Your task to perform on an android device: Go to Android settings Image 0: 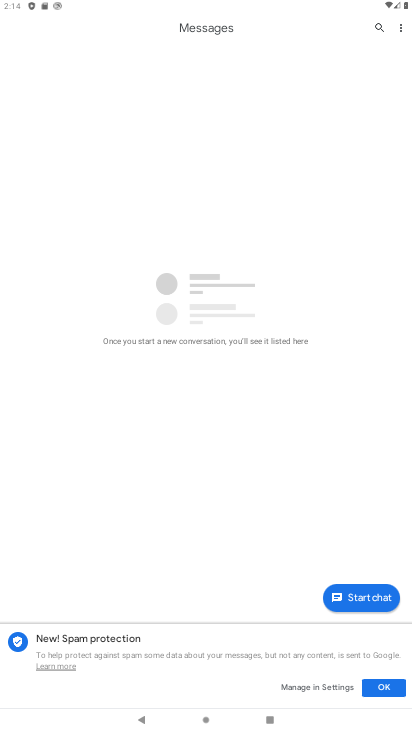
Step 0: press home button
Your task to perform on an android device: Go to Android settings Image 1: 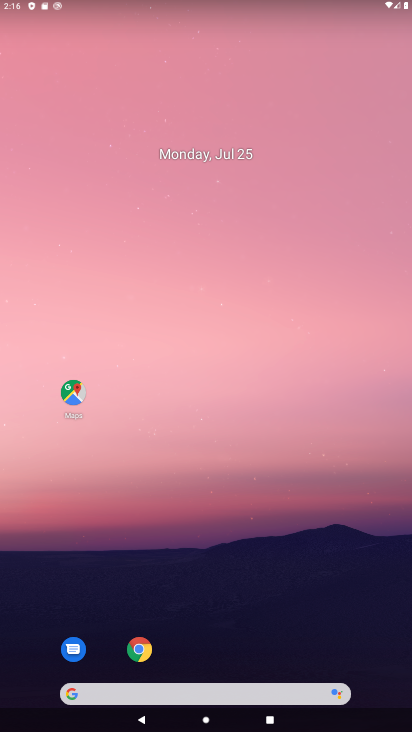
Step 1: drag from (181, 722) to (225, 6)
Your task to perform on an android device: Go to Android settings Image 2: 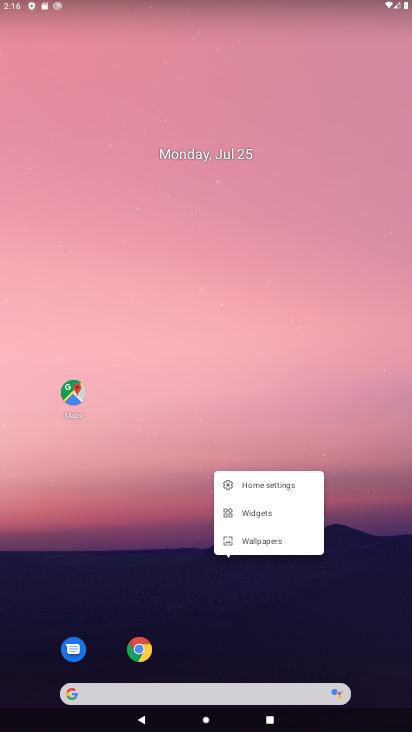
Step 2: press home button
Your task to perform on an android device: Go to Android settings Image 3: 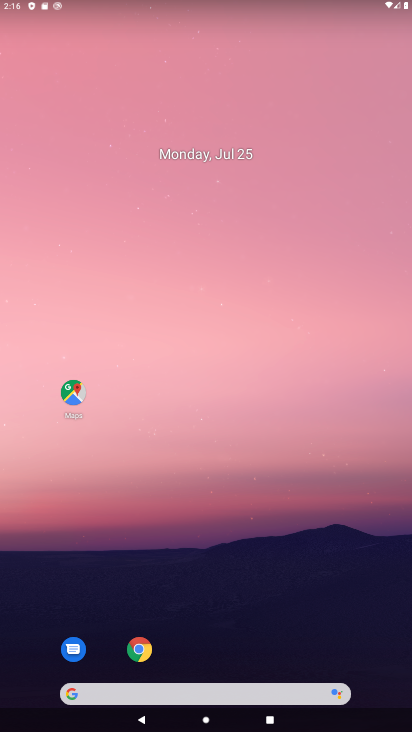
Step 3: drag from (122, 723) to (173, 8)
Your task to perform on an android device: Go to Android settings Image 4: 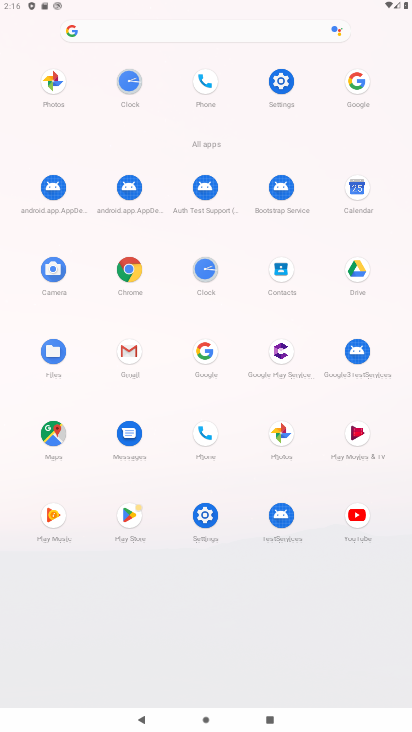
Step 4: click (280, 86)
Your task to perform on an android device: Go to Android settings Image 5: 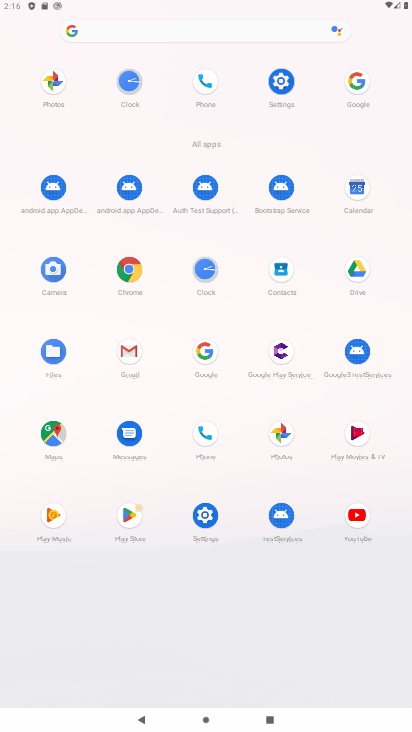
Step 5: click (280, 86)
Your task to perform on an android device: Go to Android settings Image 6: 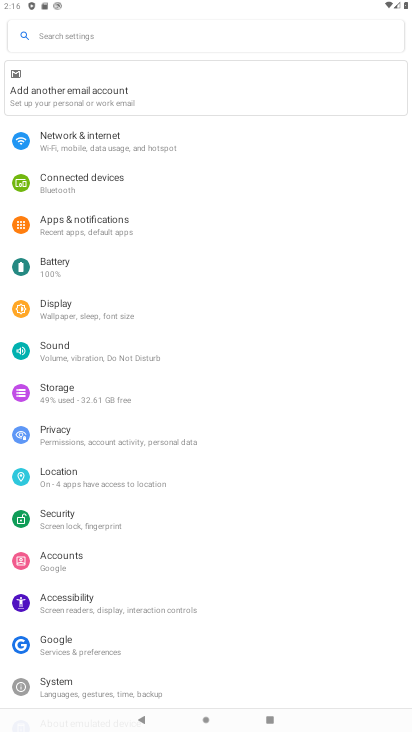
Step 6: drag from (152, 697) to (171, 62)
Your task to perform on an android device: Go to Android settings Image 7: 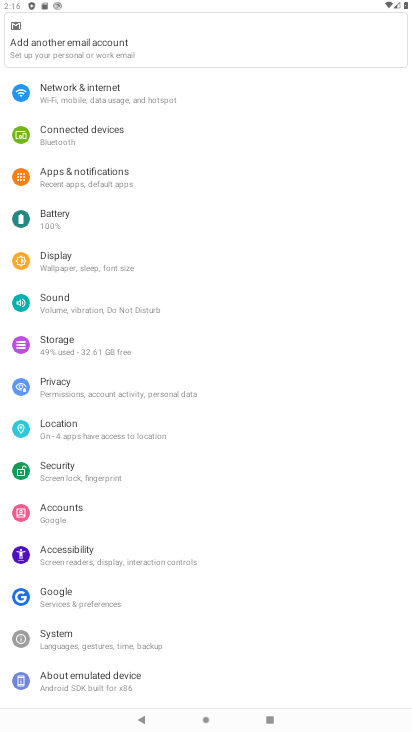
Step 7: click (290, 675)
Your task to perform on an android device: Go to Android settings Image 8: 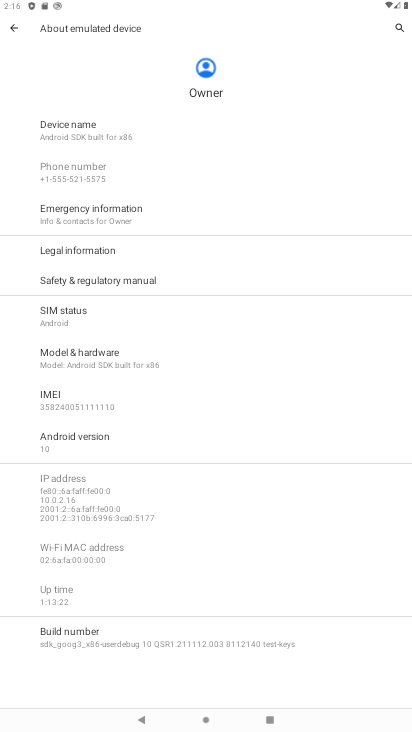
Step 8: task complete